Your task to perform on an android device: Go to sound settings Image 0: 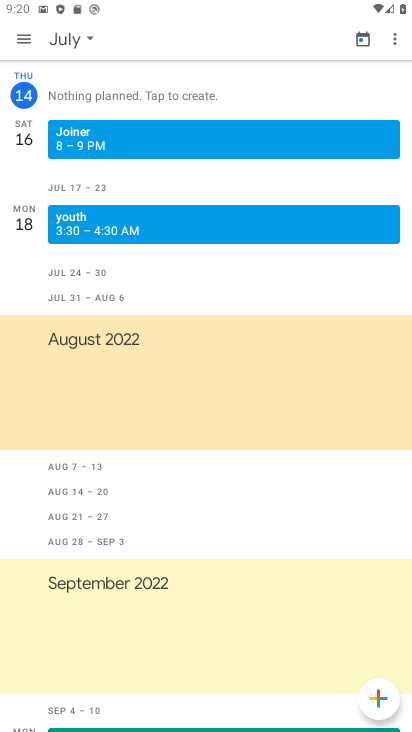
Step 0: press home button
Your task to perform on an android device: Go to sound settings Image 1: 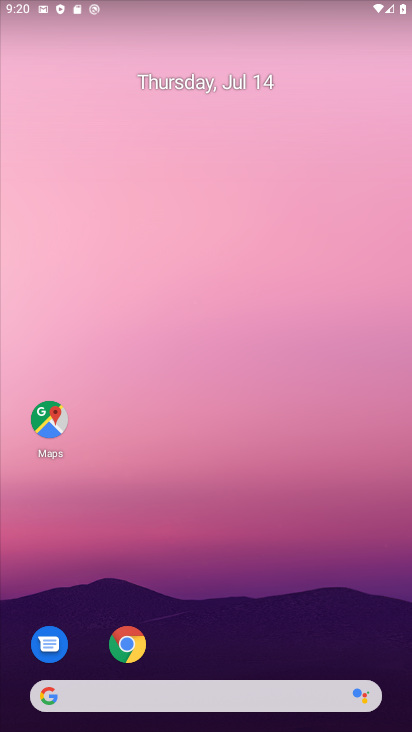
Step 1: drag from (270, 586) to (314, 79)
Your task to perform on an android device: Go to sound settings Image 2: 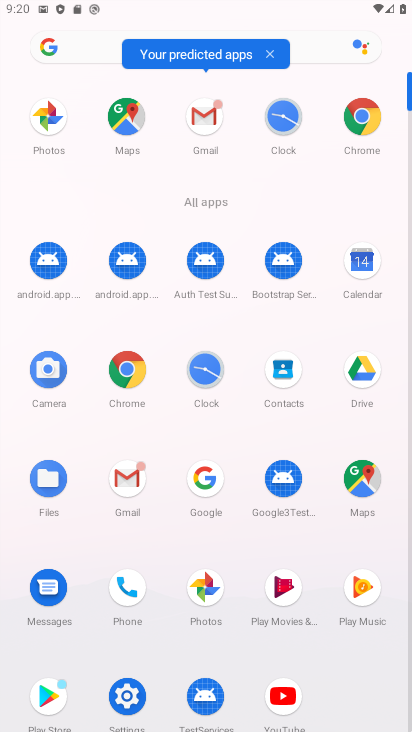
Step 2: click (129, 687)
Your task to perform on an android device: Go to sound settings Image 3: 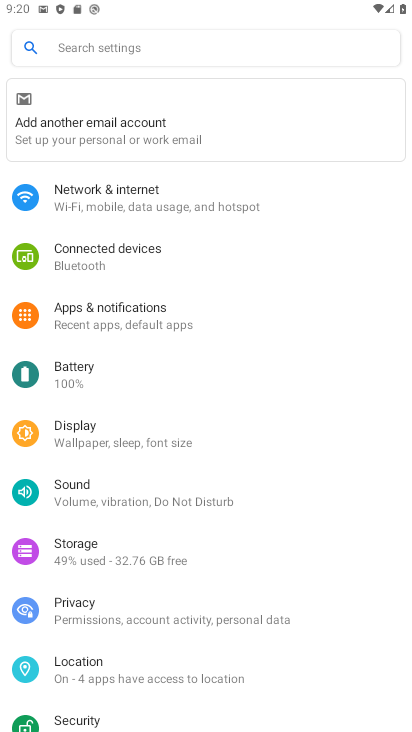
Step 3: click (133, 500)
Your task to perform on an android device: Go to sound settings Image 4: 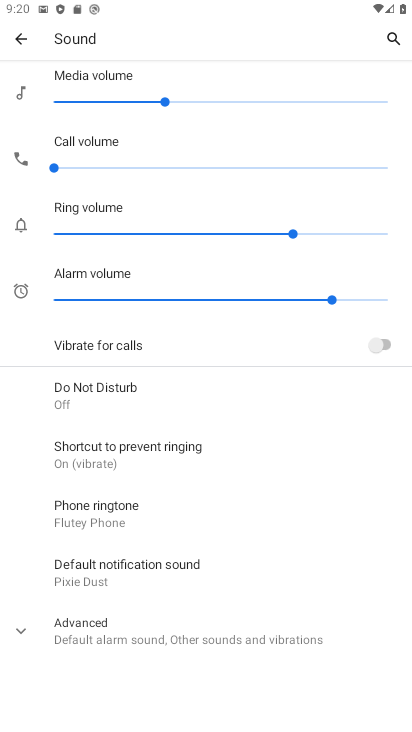
Step 4: task complete